Your task to perform on an android device: check out phone information Image 0: 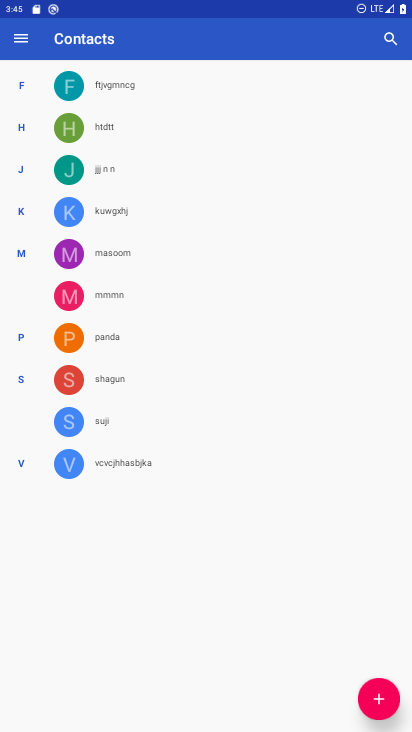
Step 0: press home button
Your task to perform on an android device: check out phone information Image 1: 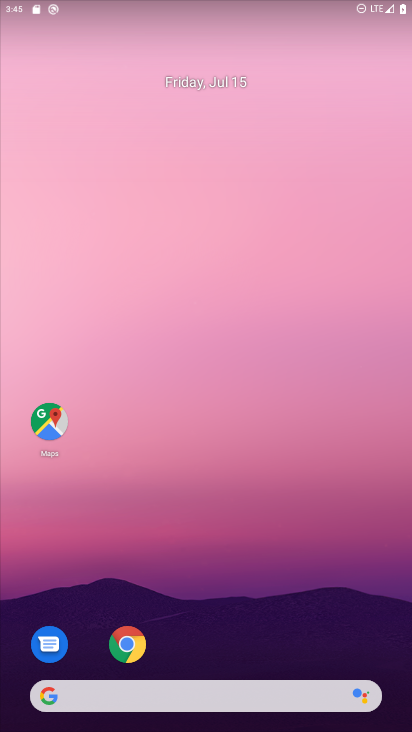
Step 1: drag from (20, 640) to (277, 137)
Your task to perform on an android device: check out phone information Image 2: 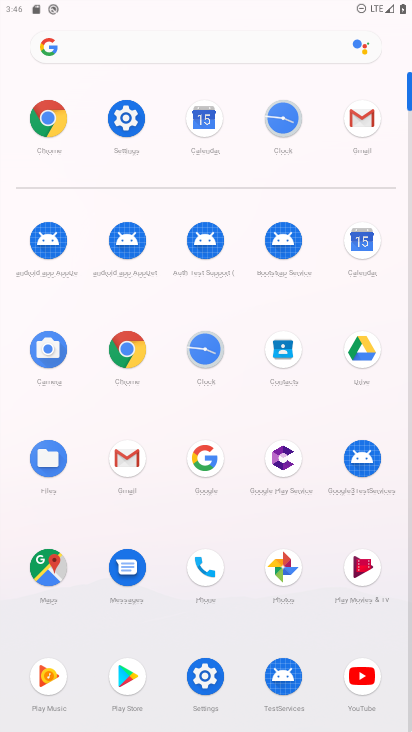
Step 2: click (205, 570)
Your task to perform on an android device: check out phone information Image 3: 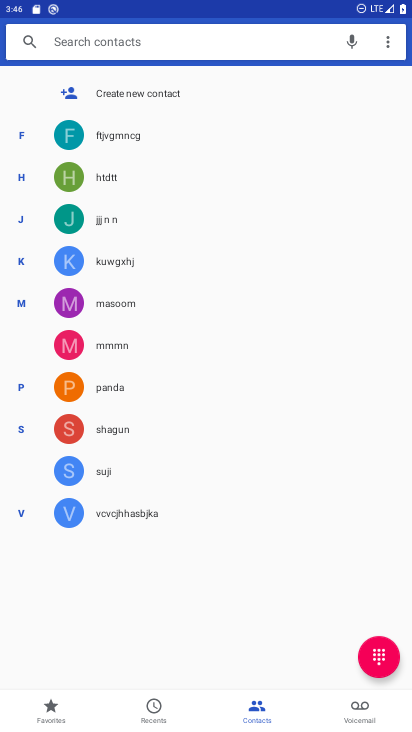
Step 3: task complete